Your task to perform on an android device: Go to Android settings Image 0: 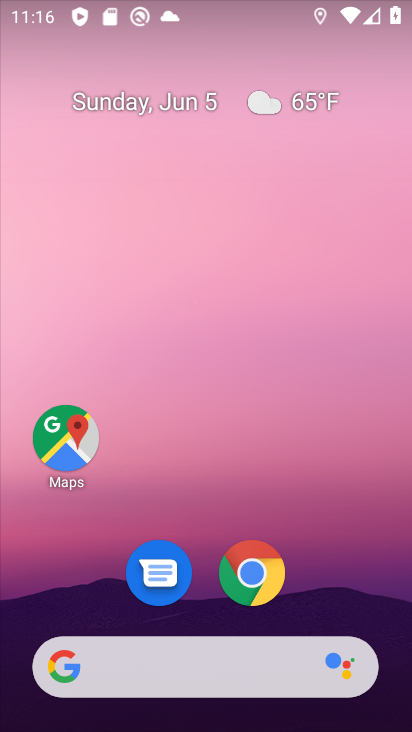
Step 0: press home button
Your task to perform on an android device: Go to Android settings Image 1: 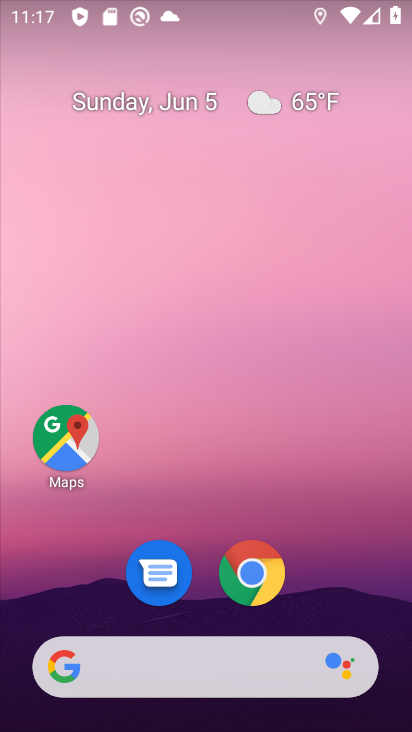
Step 1: drag from (203, 608) to (253, 155)
Your task to perform on an android device: Go to Android settings Image 2: 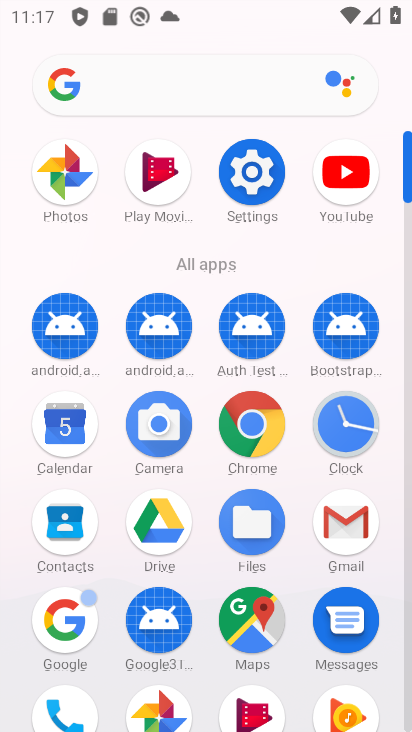
Step 2: click (254, 171)
Your task to perform on an android device: Go to Android settings Image 3: 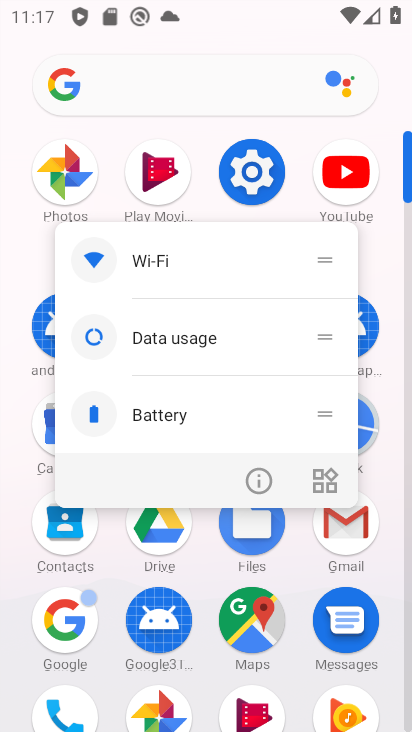
Step 3: click (248, 173)
Your task to perform on an android device: Go to Android settings Image 4: 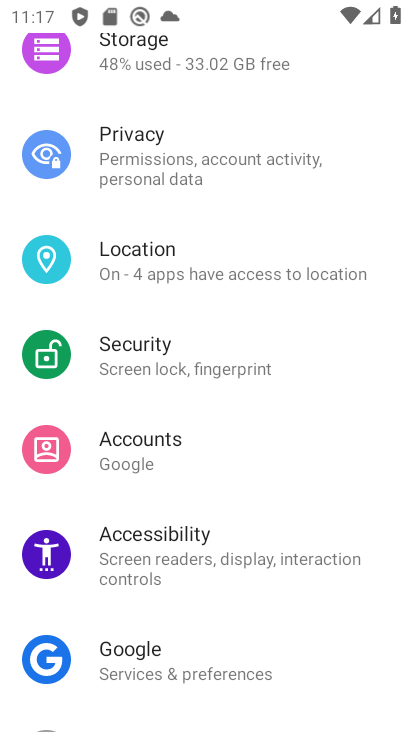
Step 4: drag from (187, 659) to (201, 239)
Your task to perform on an android device: Go to Android settings Image 5: 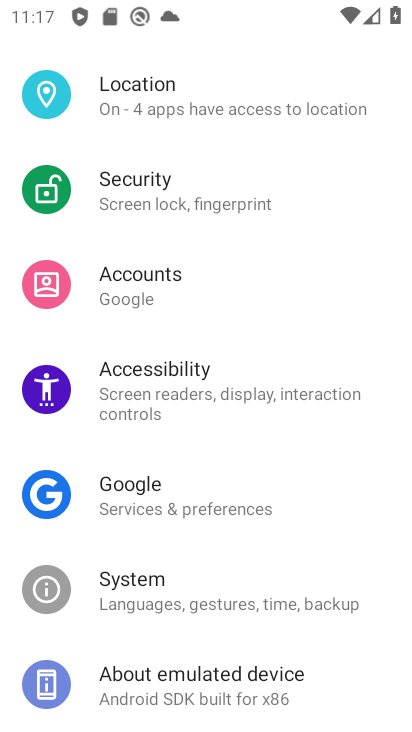
Step 5: click (196, 675)
Your task to perform on an android device: Go to Android settings Image 6: 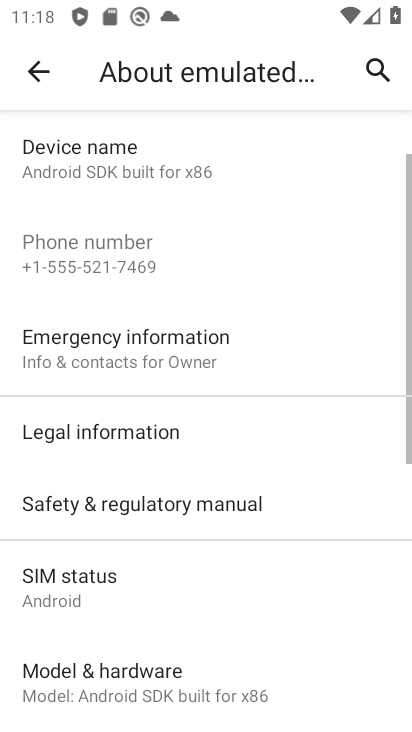
Step 6: drag from (225, 674) to (250, 267)
Your task to perform on an android device: Go to Android settings Image 7: 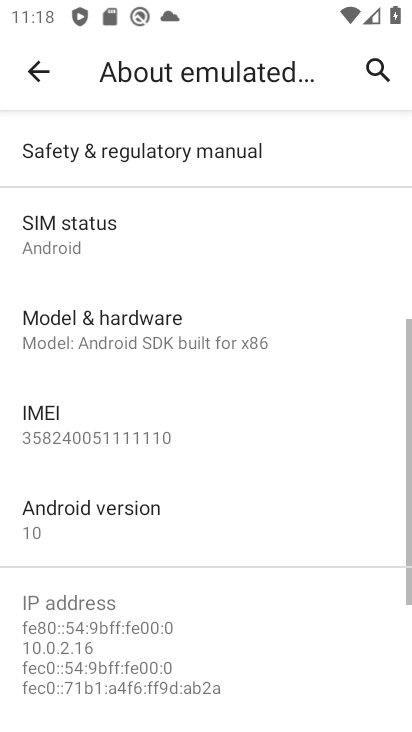
Step 7: click (117, 529)
Your task to perform on an android device: Go to Android settings Image 8: 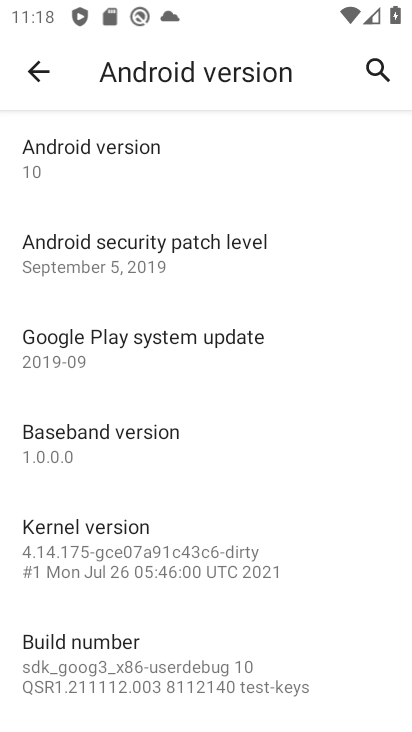
Step 8: task complete